Your task to perform on an android device: turn on bluetooth scan Image 0: 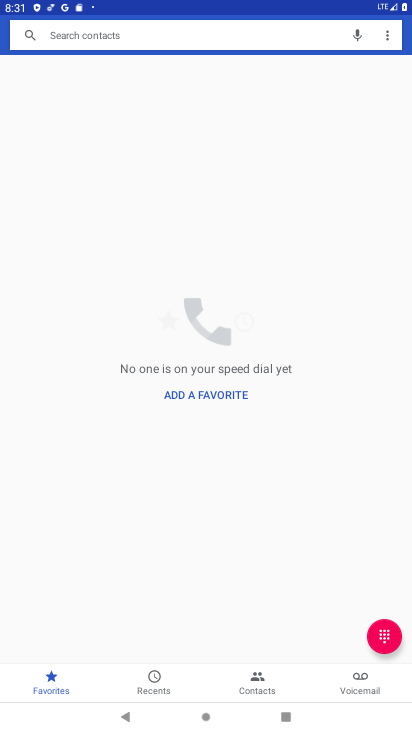
Step 0: press home button
Your task to perform on an android device: turn on bluetooth scan Image 1: 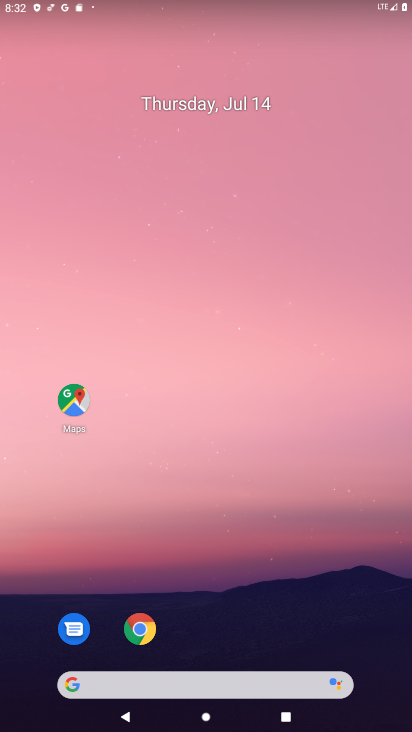
Step 1: drag from (25, 623) to (411, 143)
Your task to perform on an android device: turn on bluetooth scan Image 2: 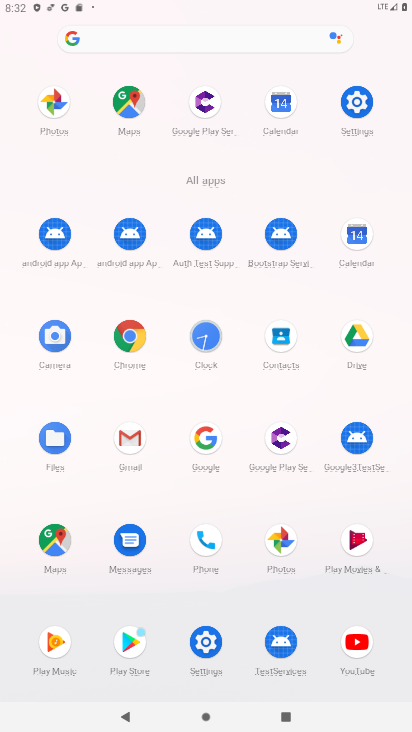
Step 2: click (355, 101)
Your task to perform on an android device: turn on bluetooth scan Image 3: 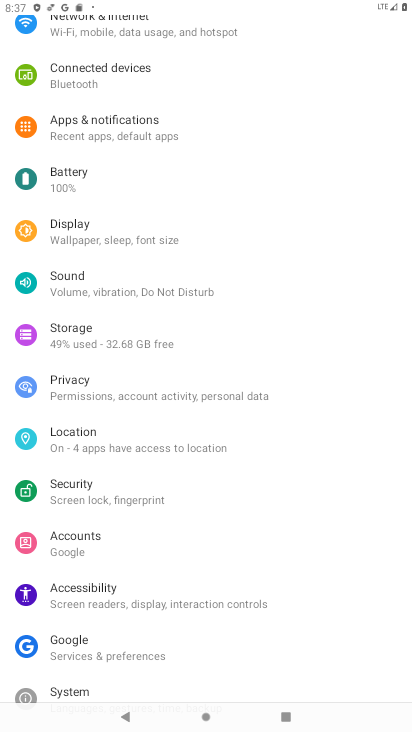
Step 3: task complete